Your task to perform on an android device: turn pop-ups on in chrome Image 0: 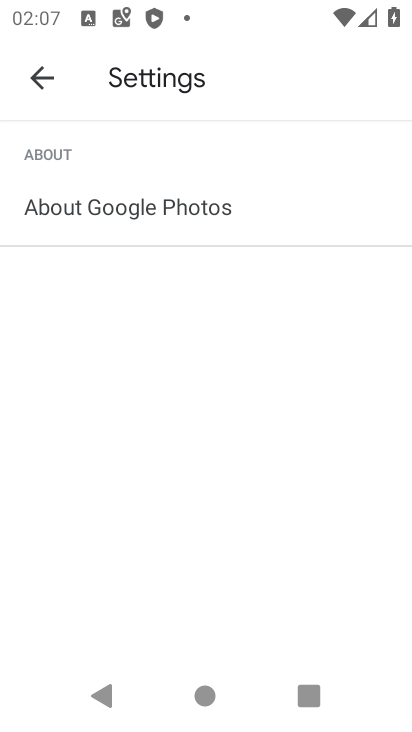
Step 0: press home button
Your task to perform on an android device: turn pop-ups on in chrome Image 1: 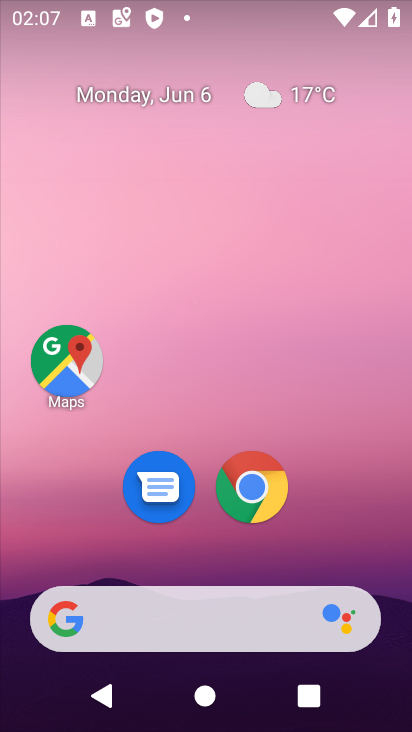
Step 1: click (257, 490)
Your task to perform on an android device: turn pop-ups on in chrome Image 2: 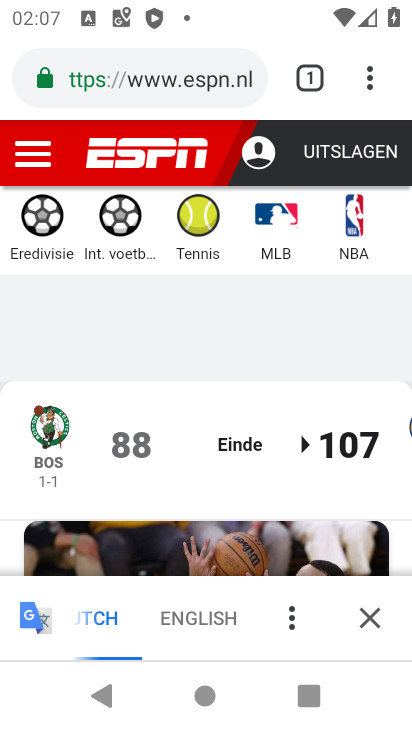
Step 2: click (366, 85)
Your task to perform on an android device: turn pop-ups on in chrome Image 3: 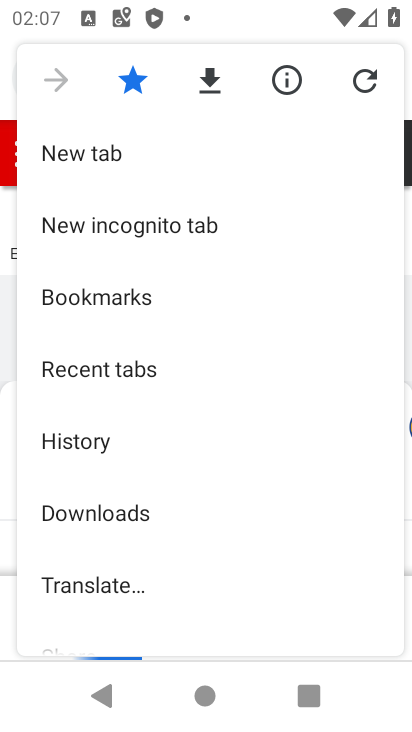
Step 3: drag from (215, 602) to (213, 263)
Your task to perform on an android device: turn pop-ups on in chrome Image 4: 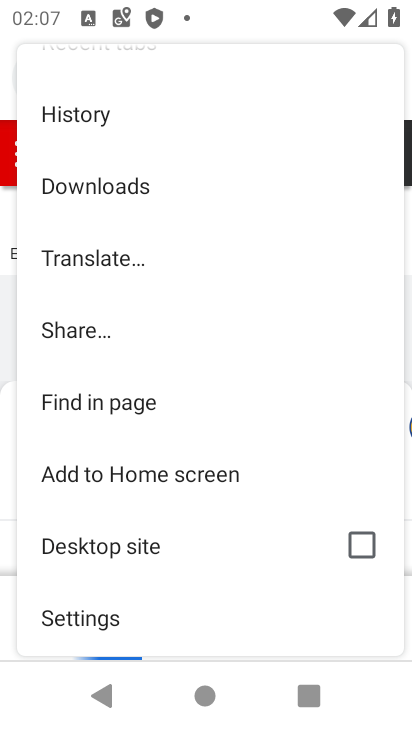
Step 4: drag from (193, 587) to (242, 212)
Your task to perform on an android device: turn pop-ups on in chrome Image 5: 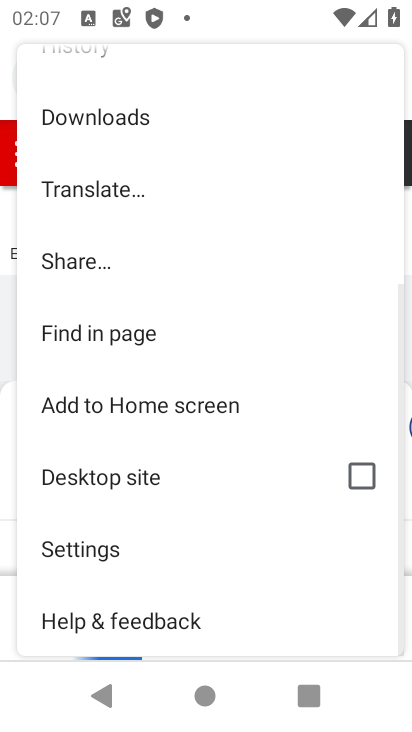
Step 5: click (40, 545)
Your task to perform on an android device: turn pop-ups on in chrome Image 6: 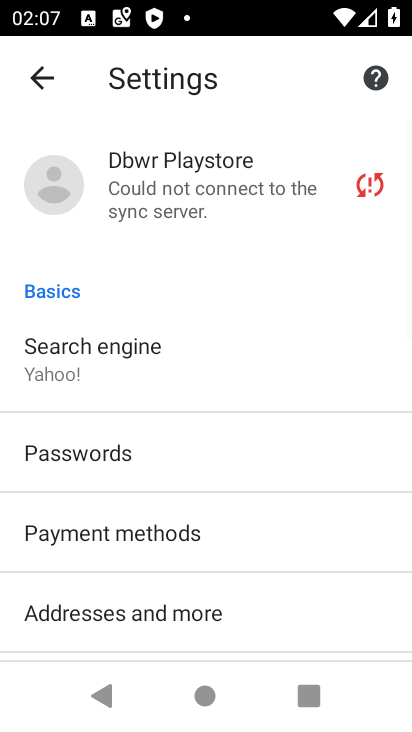
Step 6: drag from (303, 585) to (248, 153)
Your task to perform on an android device: turn pop-ups on in chrome Image 7: 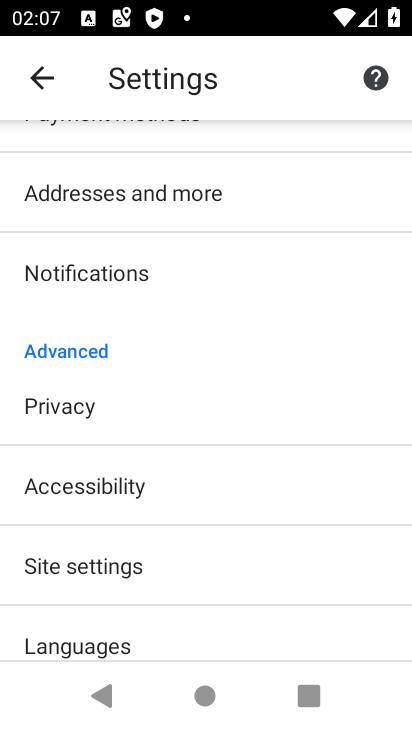
Step 7: click (94, 572)
Your task to perform on an android device: turn pop-ups on in chrome Image 8: 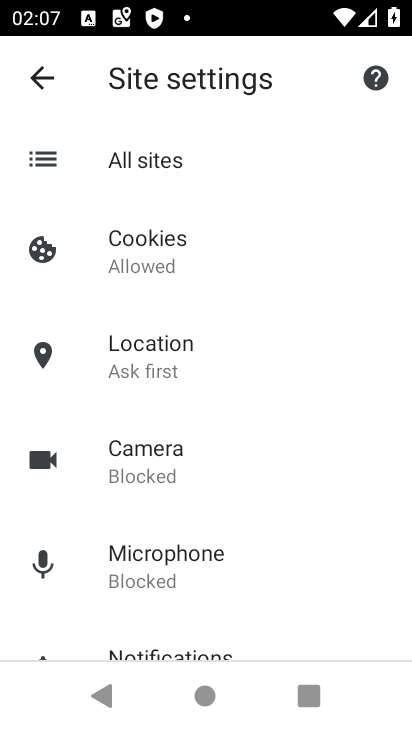
Step 8: drag from (292, 599) to (268, 192)
Your task to perform on an android device: turn pop-ups on in chrome Image 9: 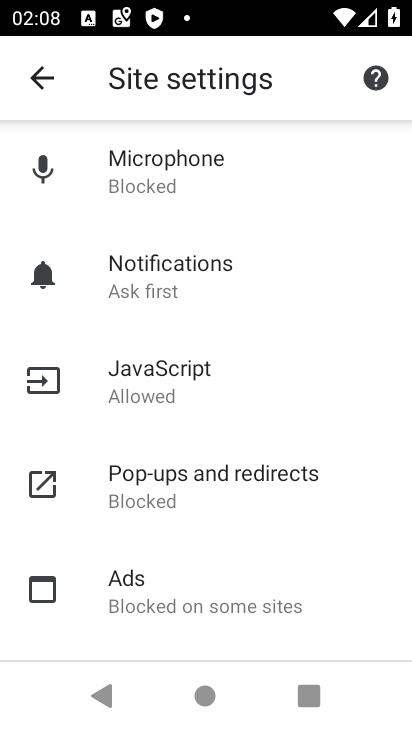
Step 9: click (157, 501)
Your task to perform on an android device: turn pop-ups on in chrome Image 10: 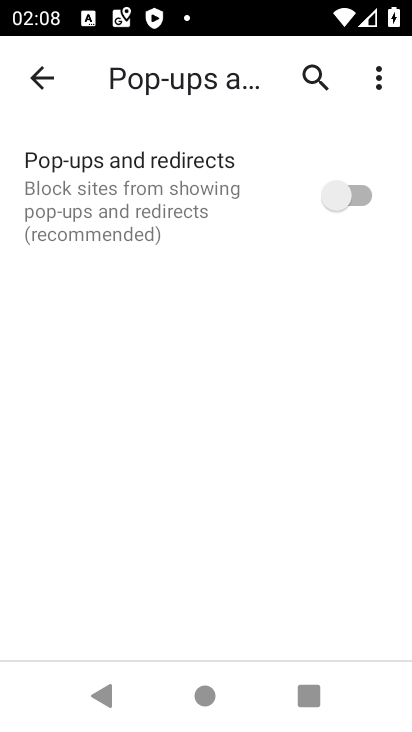
Step 10: click (372, 192)
Your task to perform on an android device: turn pop-ups on in chrome Image 11: 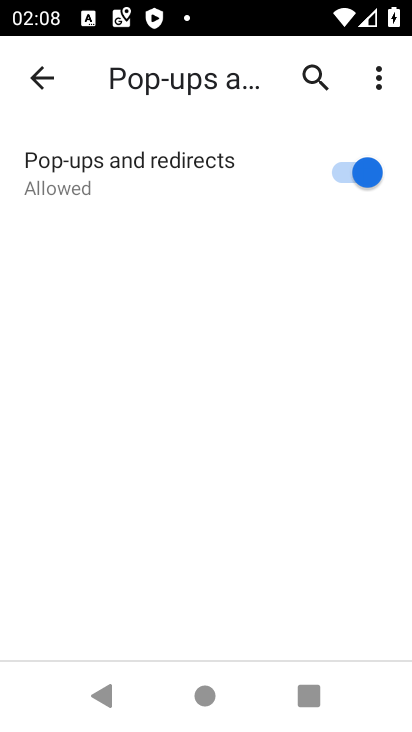
Step 11: task complete